Your task to perform on an android device: set default search engine in the chrome app Image 0: 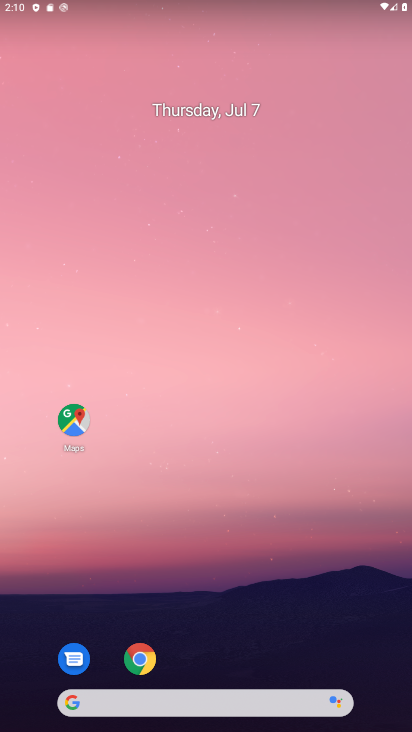
Step 0: click (142, 664)
Your task to perform on an android device: set default search engine in the chrome app Image 1: 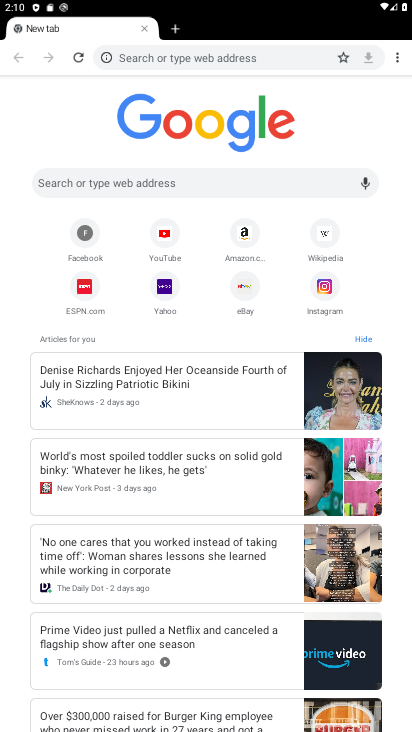
Step 1: click (398, 52)
Your task to perform on an android device: set default search engine in the chrome app Image 2: 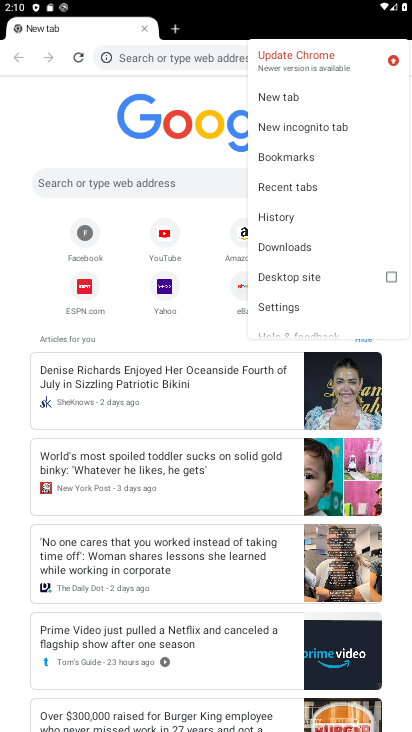
Step 2: click (282, 306)
Your task to perform on an android device: set default search engine in the chrome app Image 3: 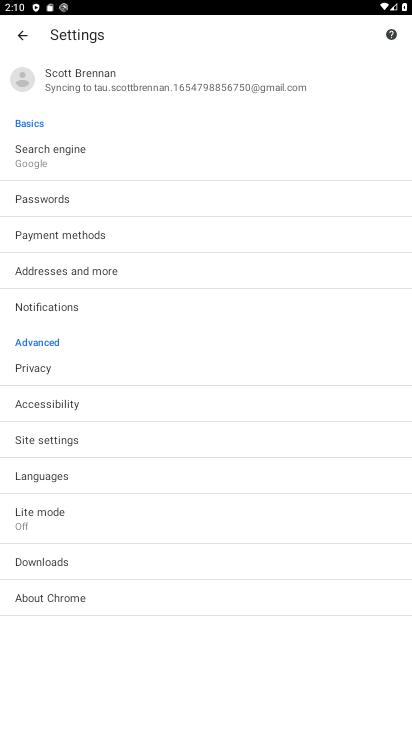
Step 3: click (49, 143)
Your task to perform on an android device: set default search engine in the chrome app Image 4: 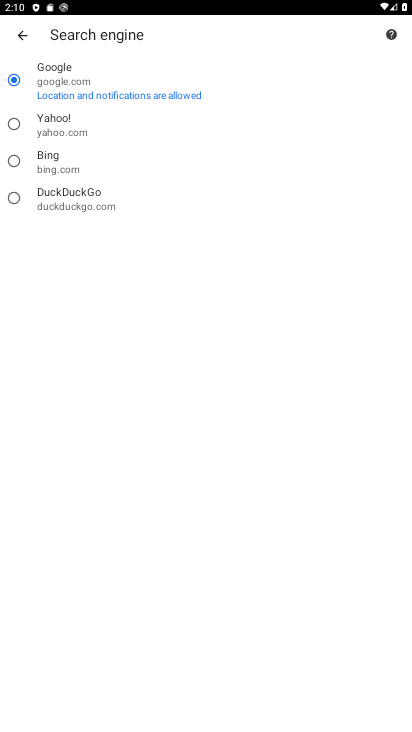
Step 4: click (4, 120)
Your task to perform on an android device: set default search engine in the chrome app Image 5: 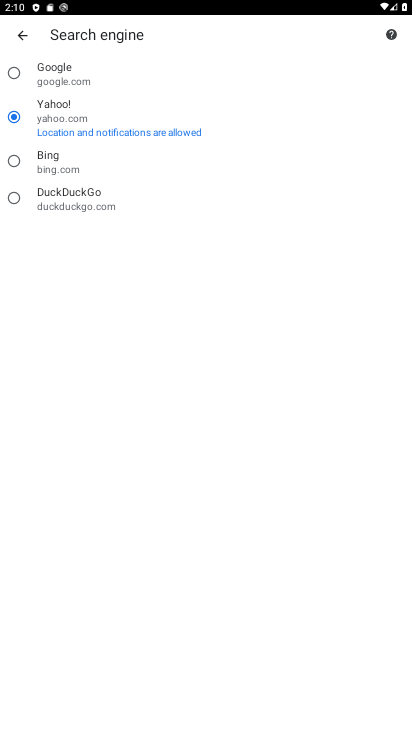
Step 5: task complete